Your task to perform on an android device: open a bookmark in the chrome app Image 0: 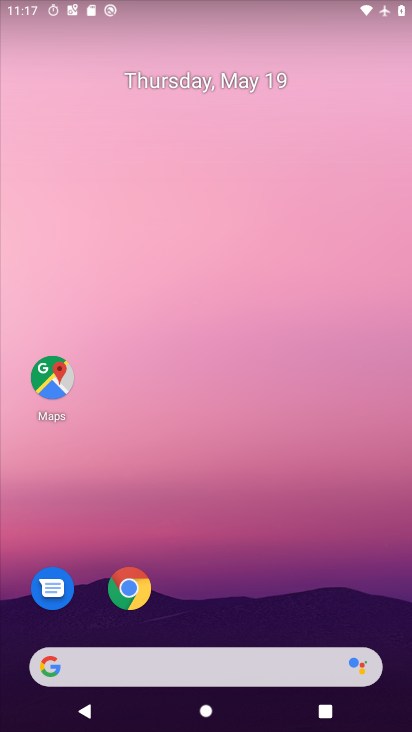
Step 0: press home button
Your task to perform on an android device: open a bookmark in the chrome app Image 1: 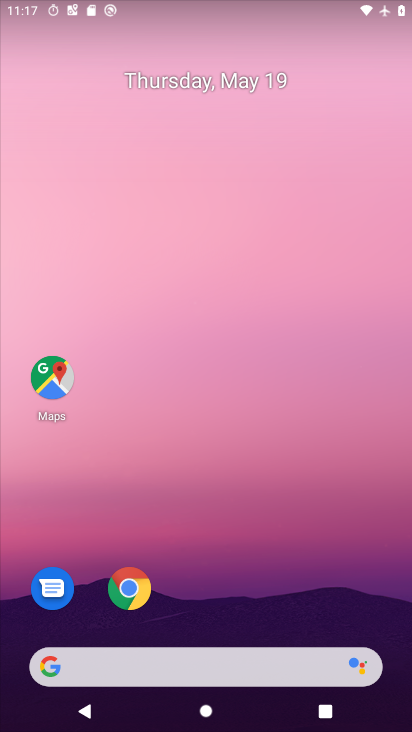
Step 1: click (134, 592)
Your task to perform on an android device: open a bookmark in the chrome app Image 2: 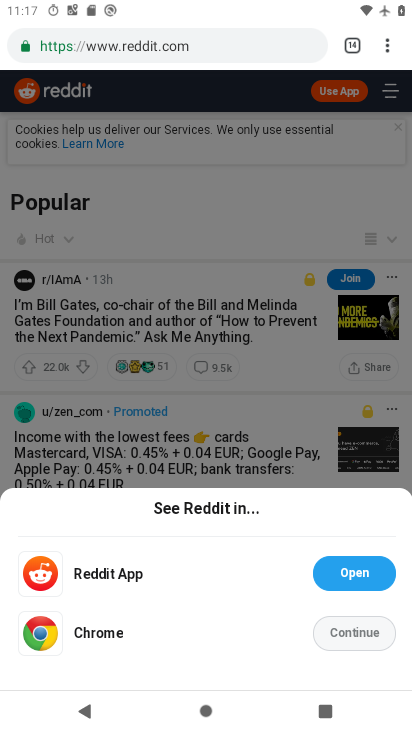
Step 2: task complete